Your task to perform on an android device: Open the map Image 0: 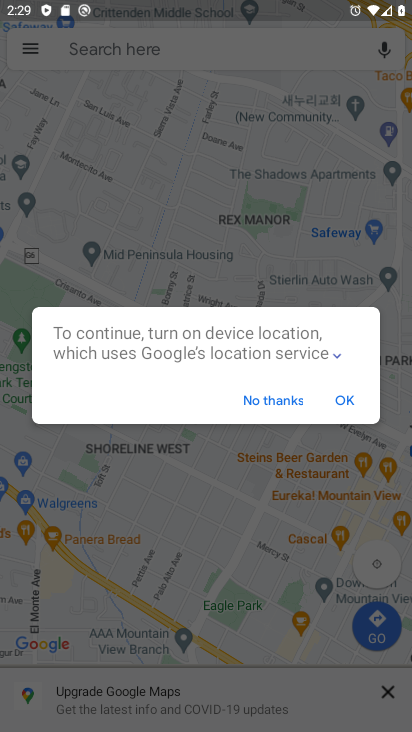
Step 0: click (339, 397)
Your task to perform on an android device: Open the map Image 1: 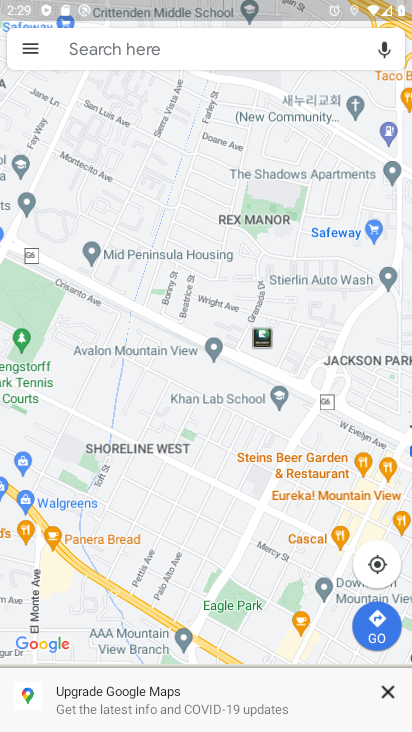
Step 1: press home button
Your task to perform on an android device: Open the map Image 2: 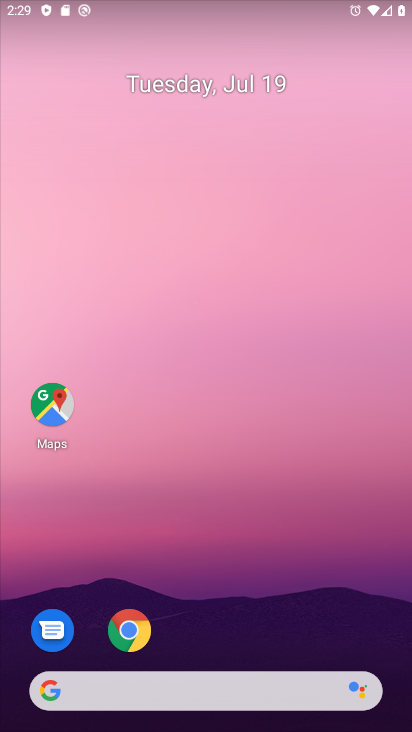
Step 2: click (58, 407)
Your task to perform on an android device: Open the map Image 3: 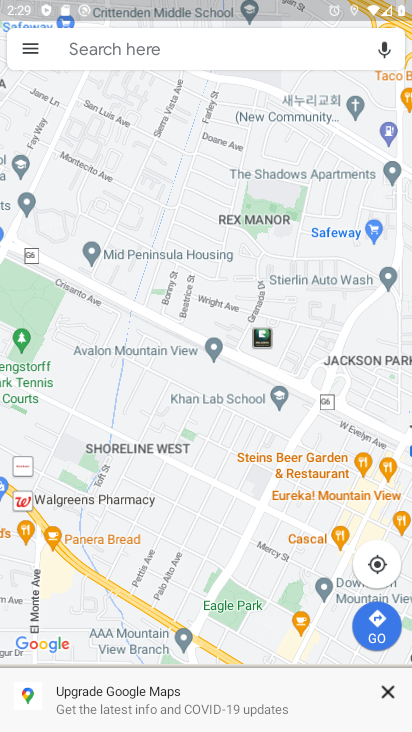
Step 3: task complete